Your task to perform on an android device: Add "macbook air" to the cart on costco Image 0: 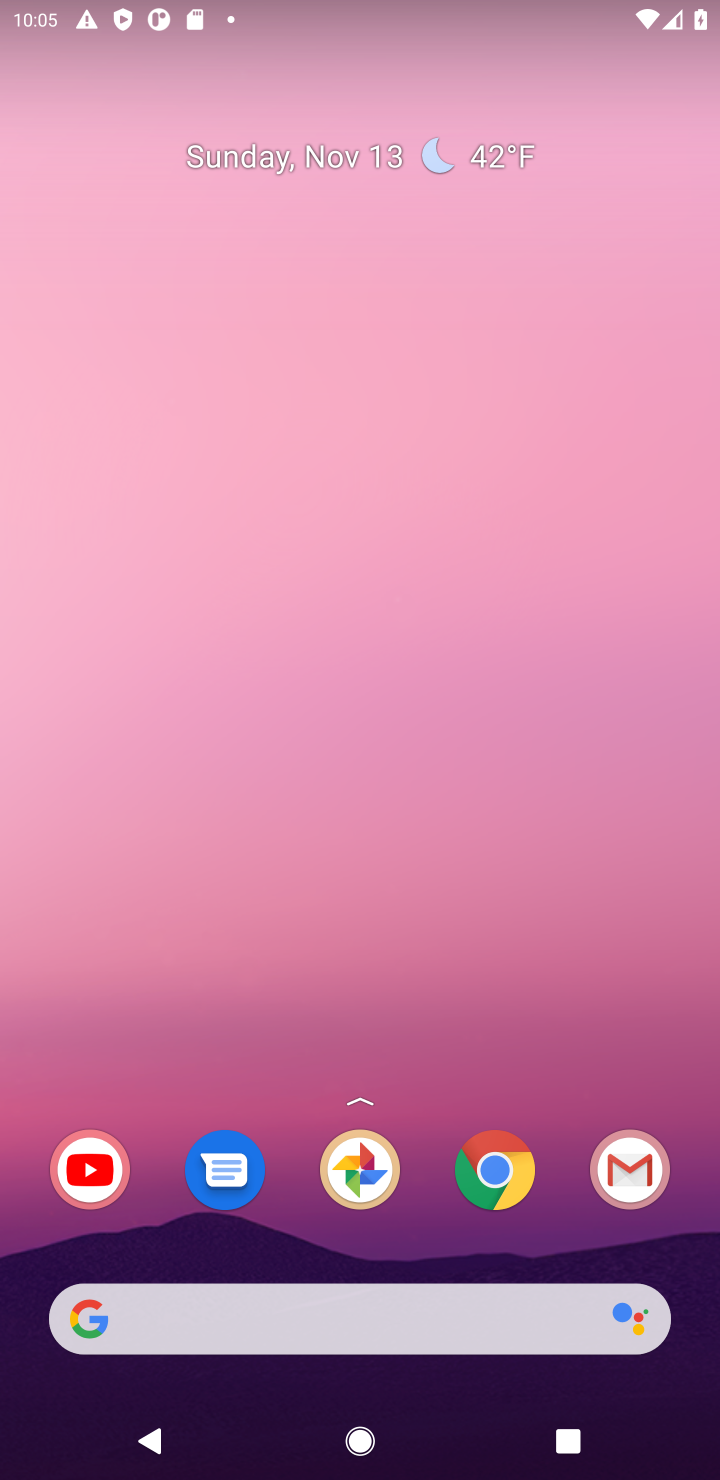
Step 0: drag from (399, 999) to (448, 24)
Your task to perform on an android device: Add "macbook air" to the cart on costco Image 1: 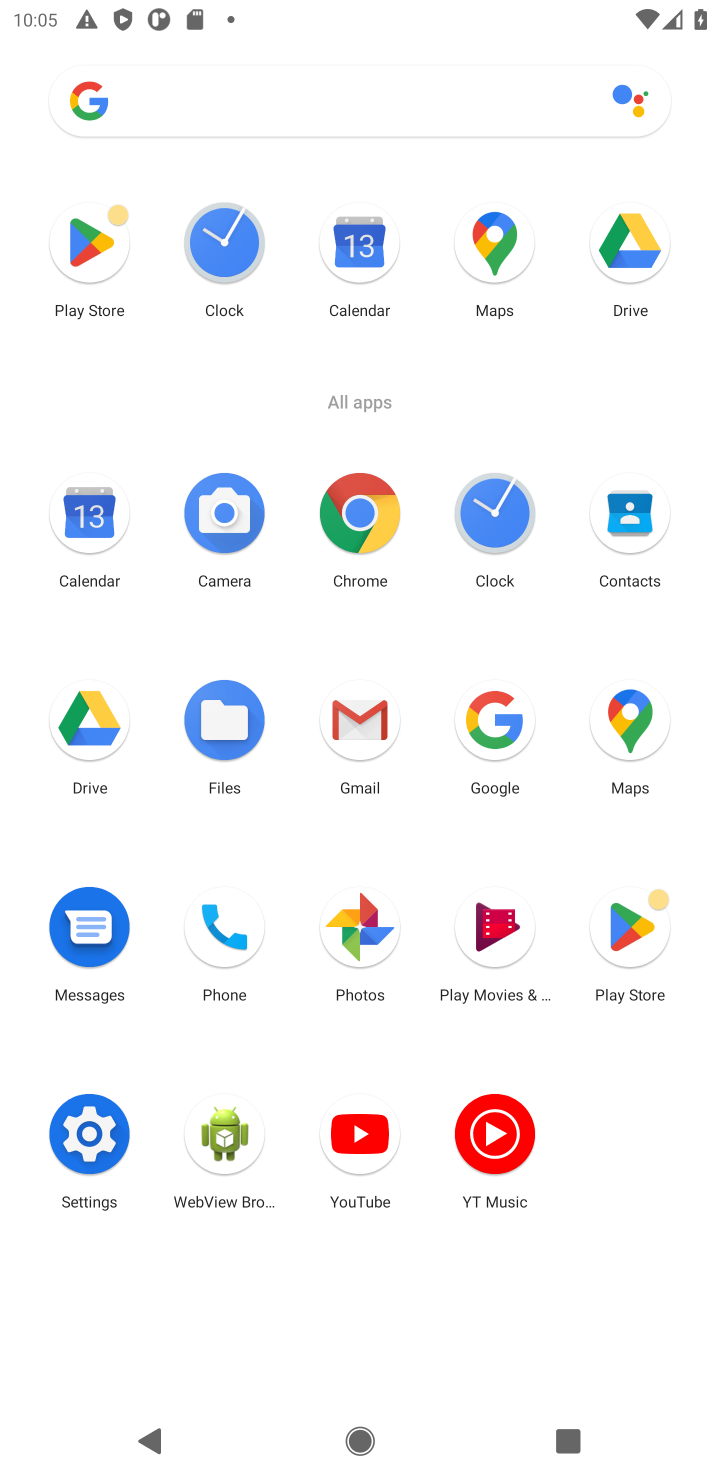
Step 1: click (357, 540)
Your task to perform on an android device: Add "macbook air" to the cart on costco Image 2: 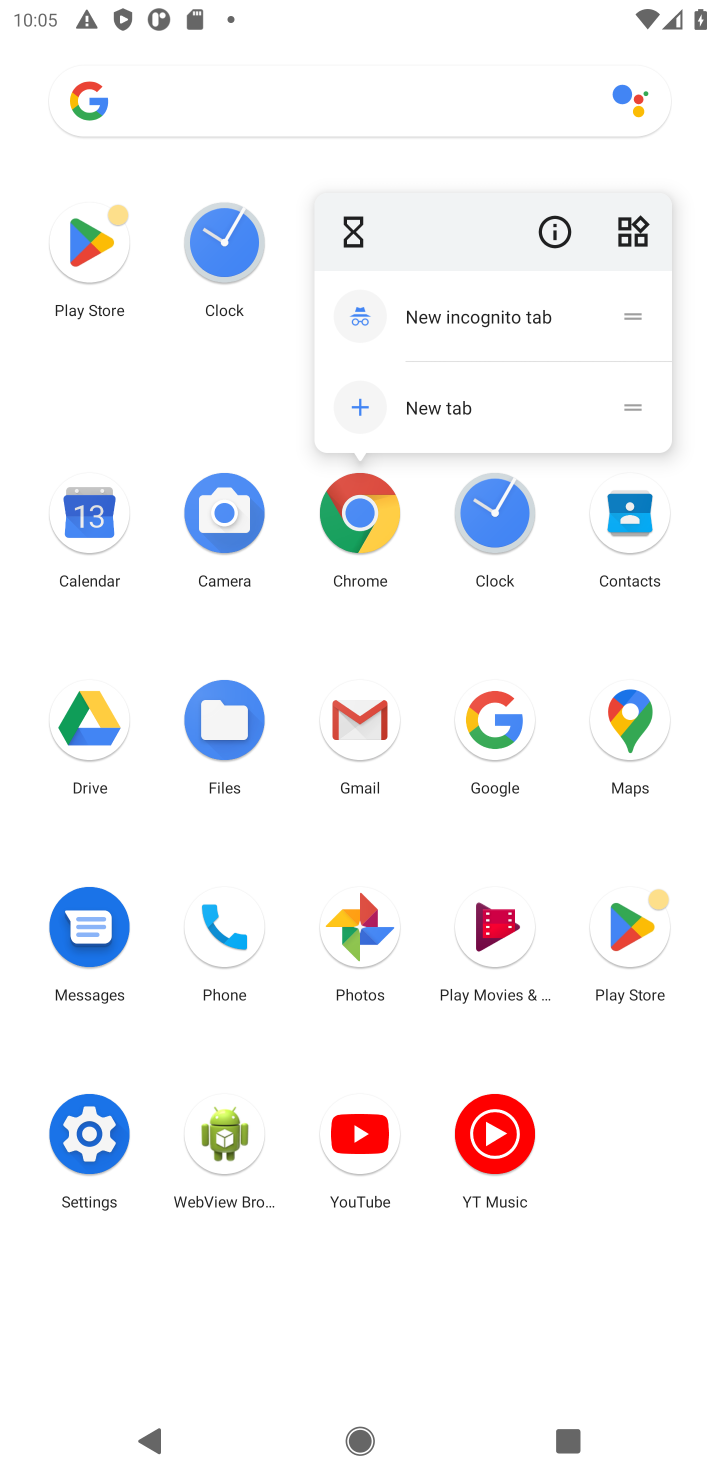
Step 2: click (357, 538)
Your task to perform on an android device: Add "macbook air" to the cart on costco Image 3: 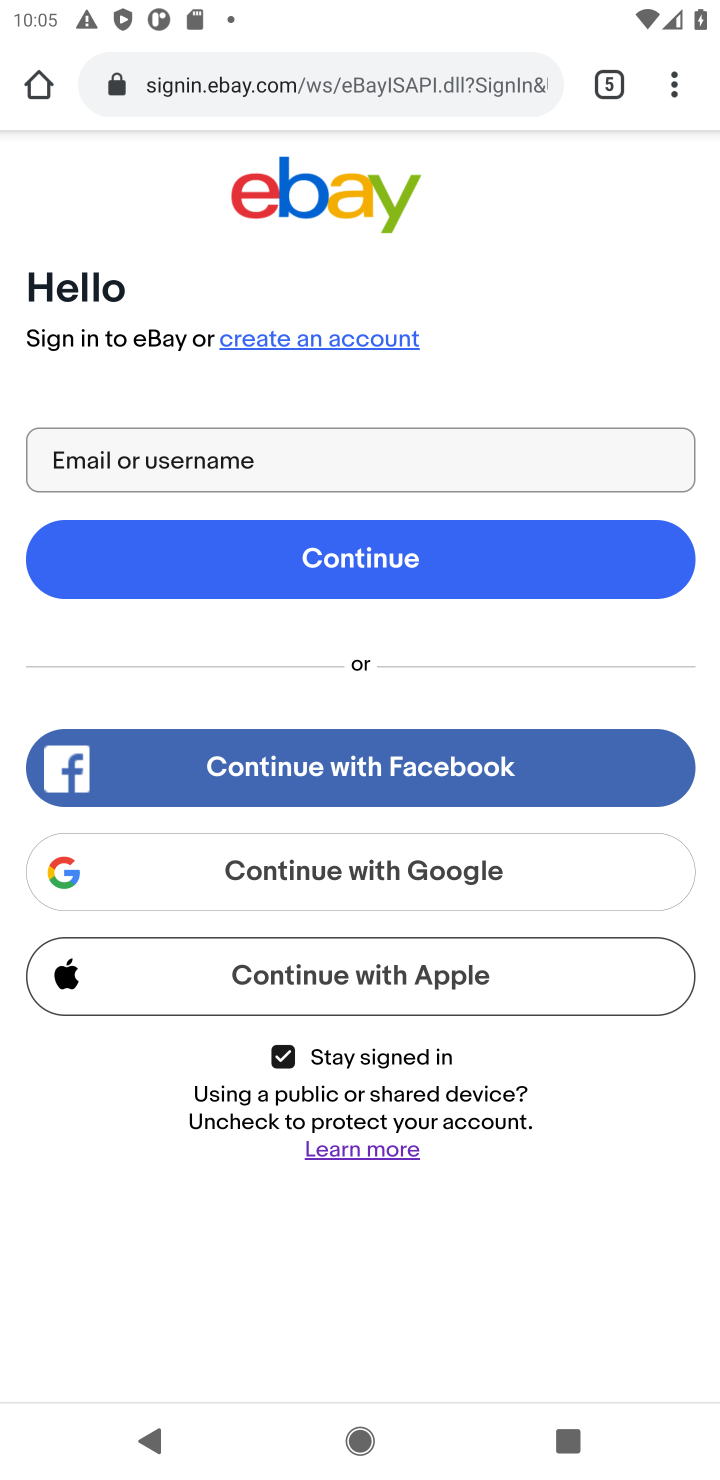
Step 3: click (300, 81)
Your task to perform on an android device: Add "macbook air" to the cart on costco Image 4: 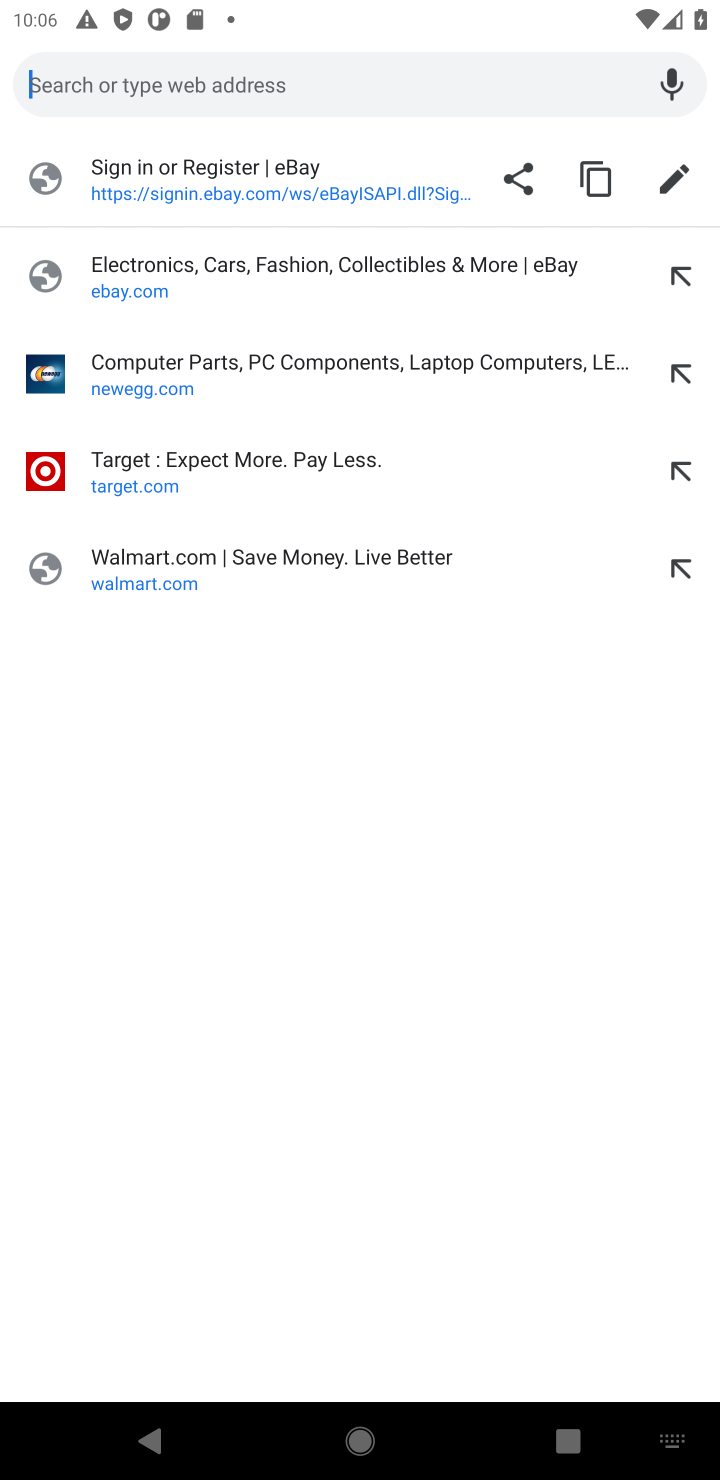
Step 4: type "costco"
Your task to perform on an android device: Add "macbook air" to the cart on costco Image 5: 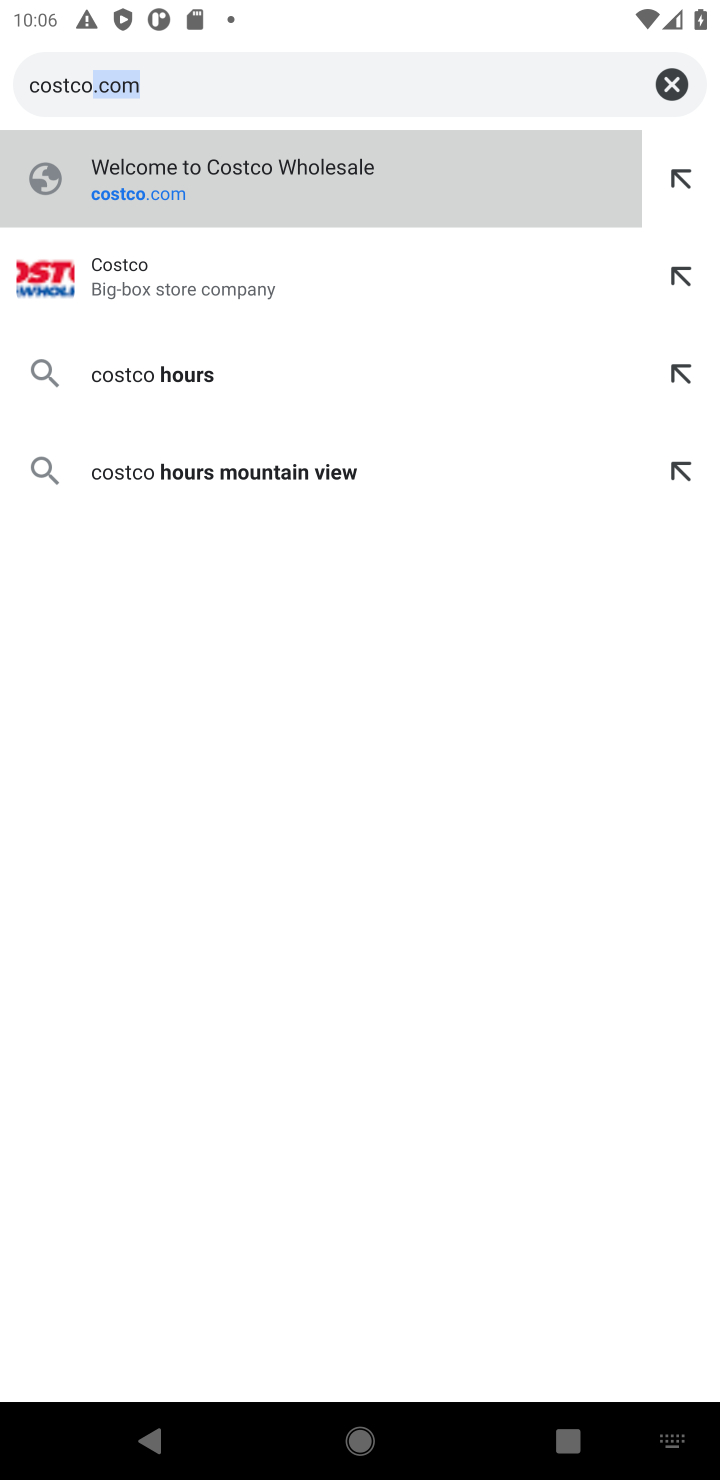
Step 5: press enter
Your task to perform on an android device: Add "macbook air" to the cart on costco Image 6: 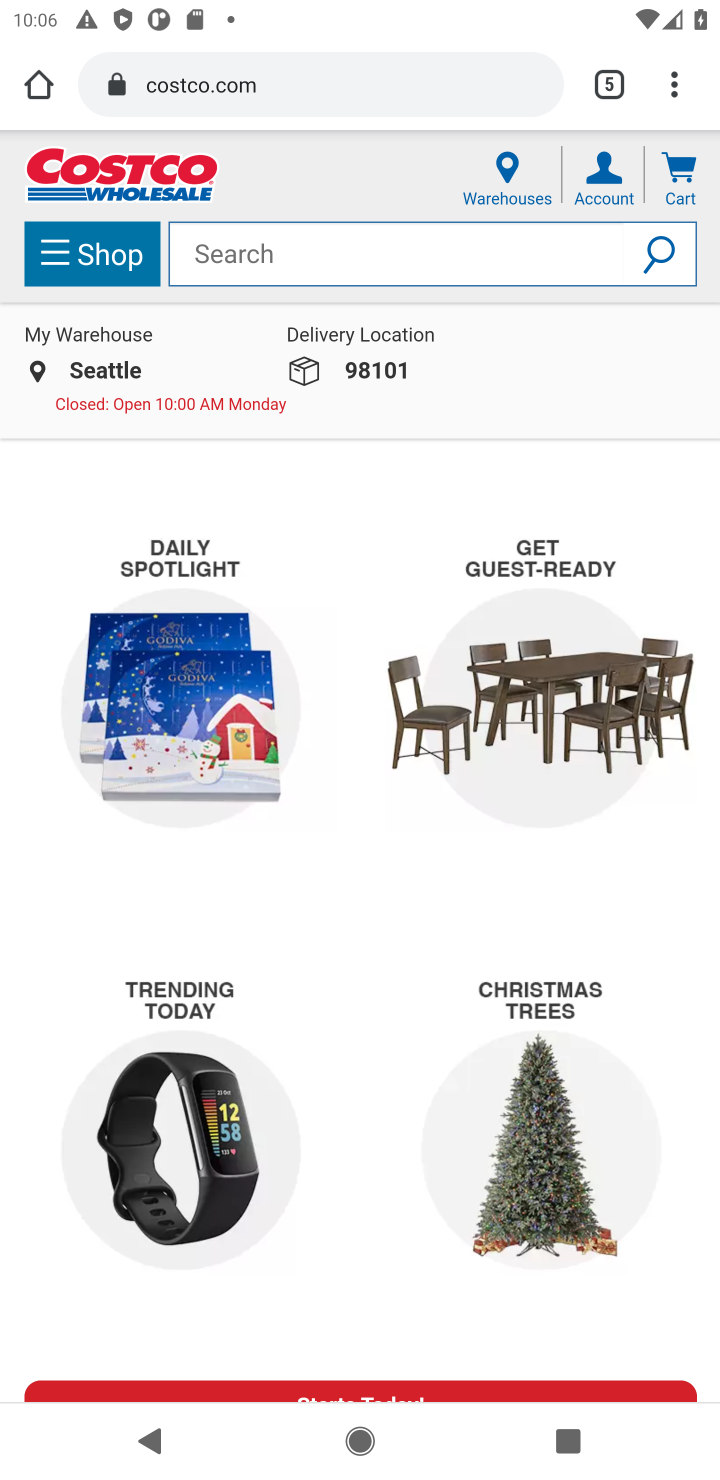
Step 6: drag from (285, 615) to (240, 860)
Your task to perform on an android device: Add "macbook air" to the cart on costco Image 7: 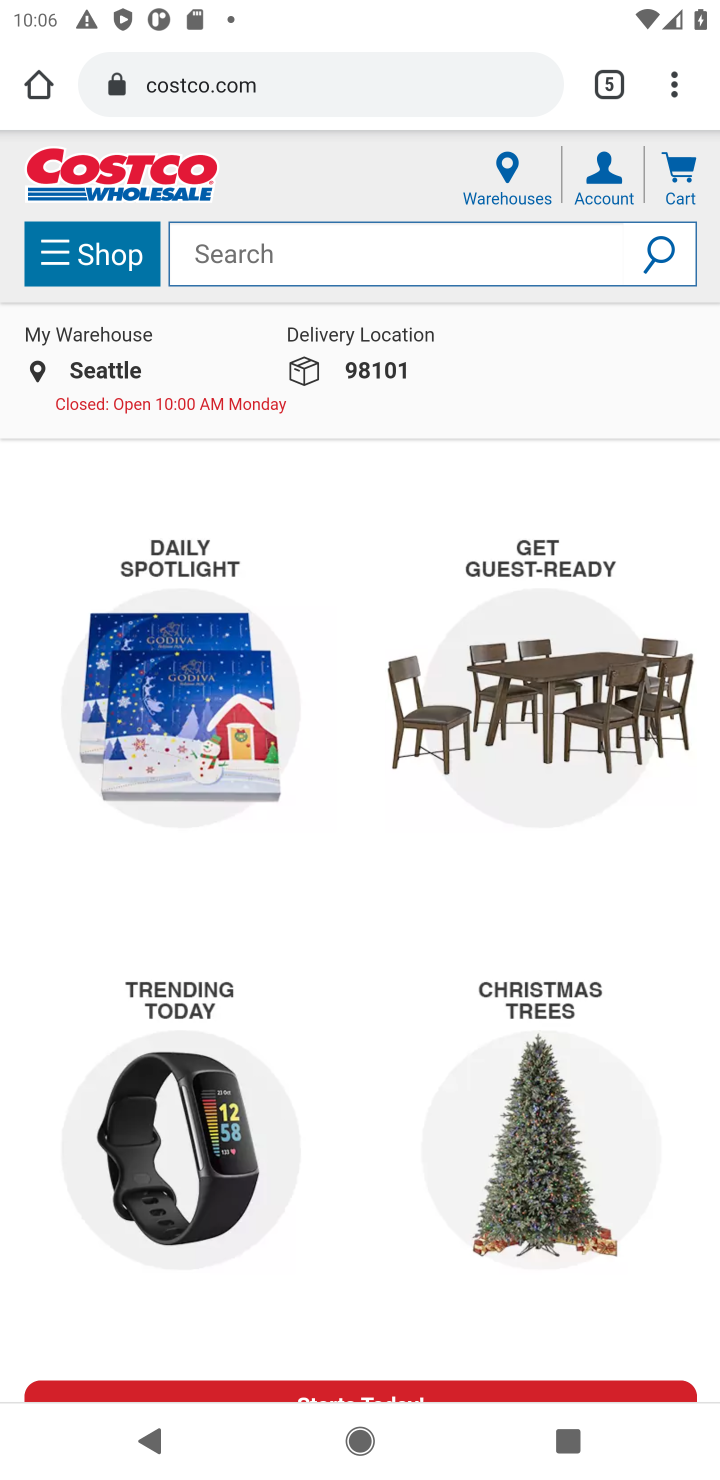
Step 7: click (364, 242)
Your task to perform on an android device: Add "macbook air" to the cart on costco Image 8: 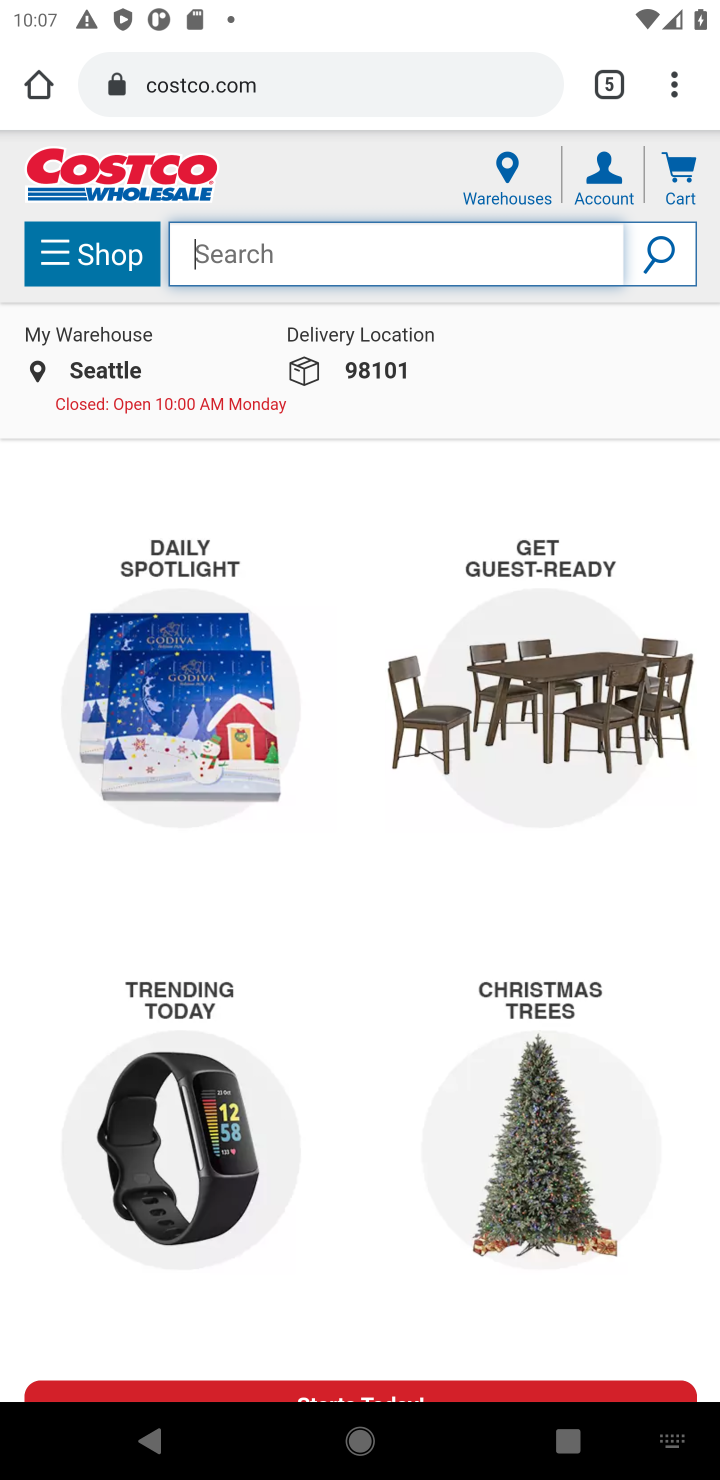
Step 8: type "macbook air"
Your task to perform on an android device: Add "macbook air" to the cart on costco Image 9: 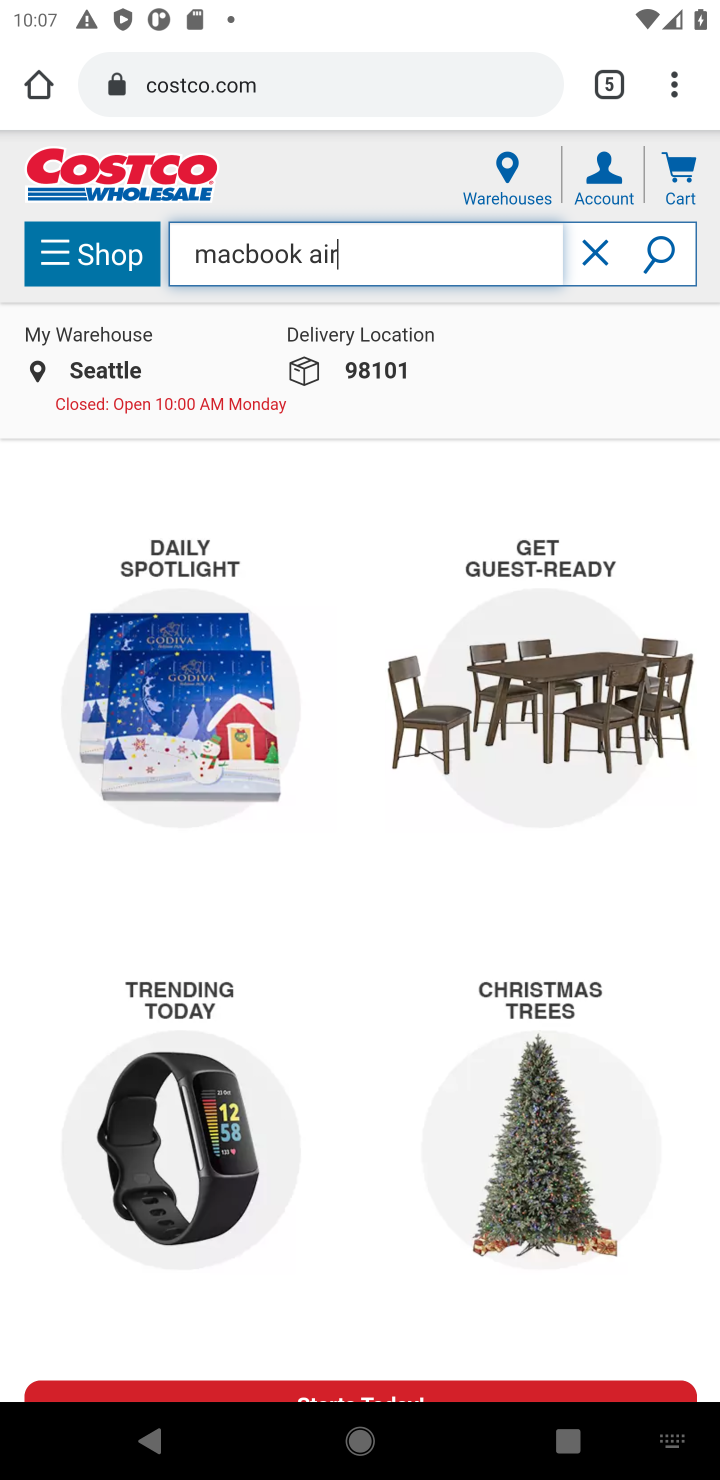
Step 9: press enter
Your task to perform on an android device: Add "macbook air" to the cart on costco Image 10: 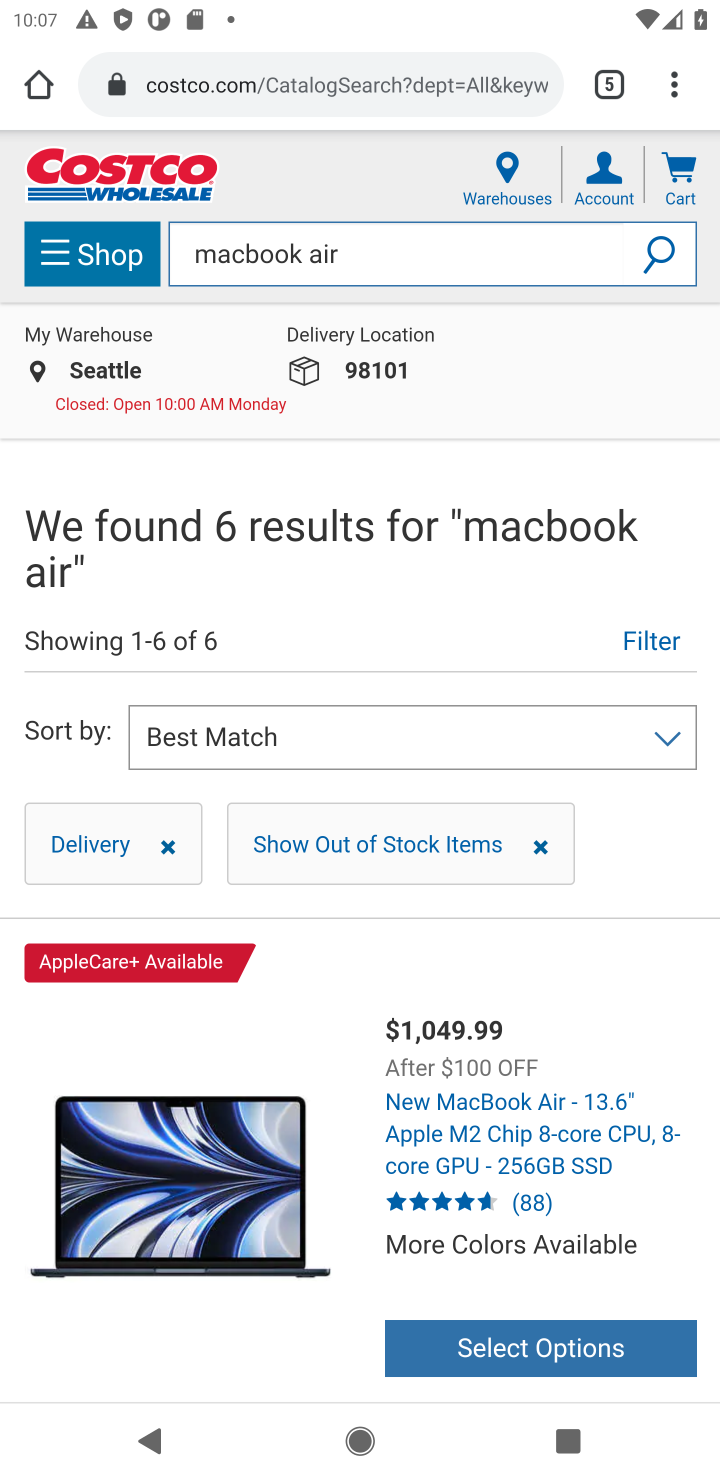
Step 10: drag from (327, 953) to (469, 365)
Your task to perform on an android device: Add "macbook air" to the cart on costco Image 11: 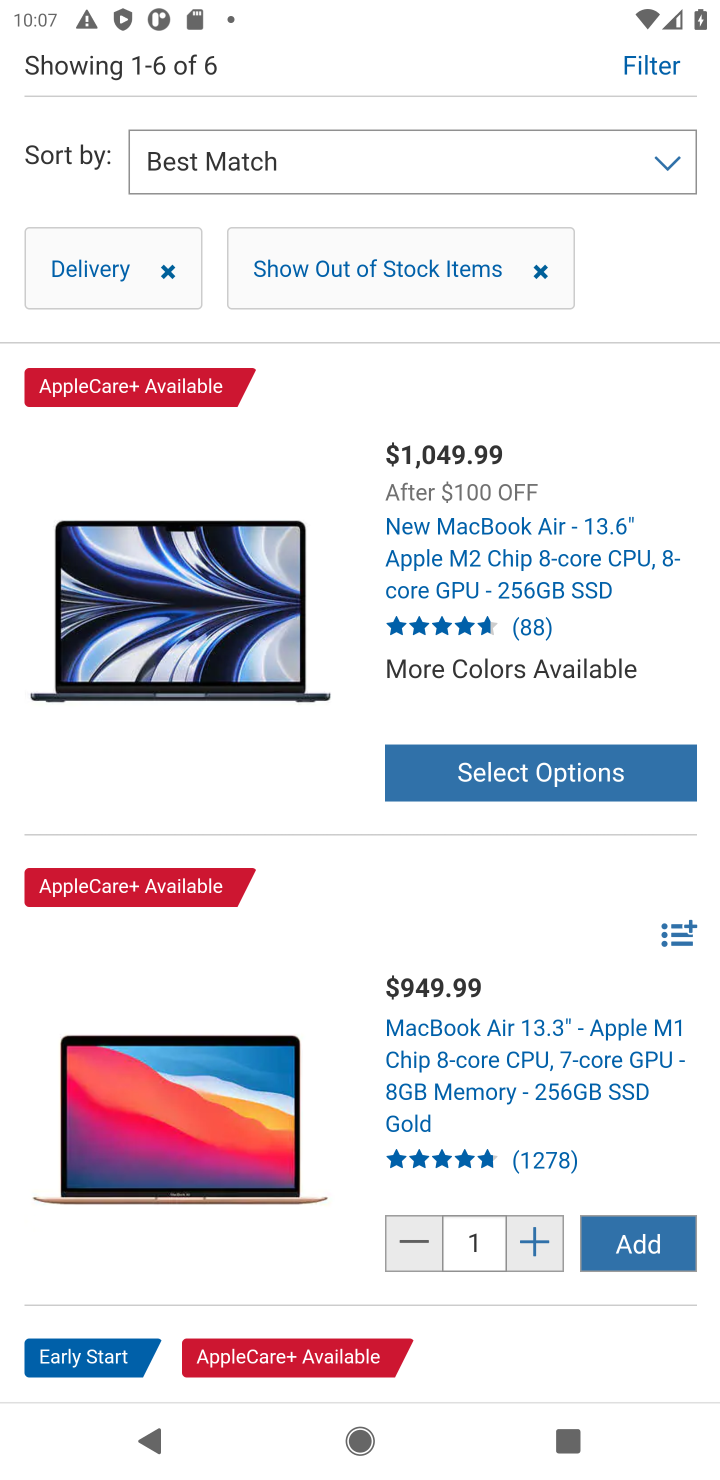
Step 11: click (538, 782)
Your task to perform on an android device: Add "macbook air" to the cart on costco Image 12: 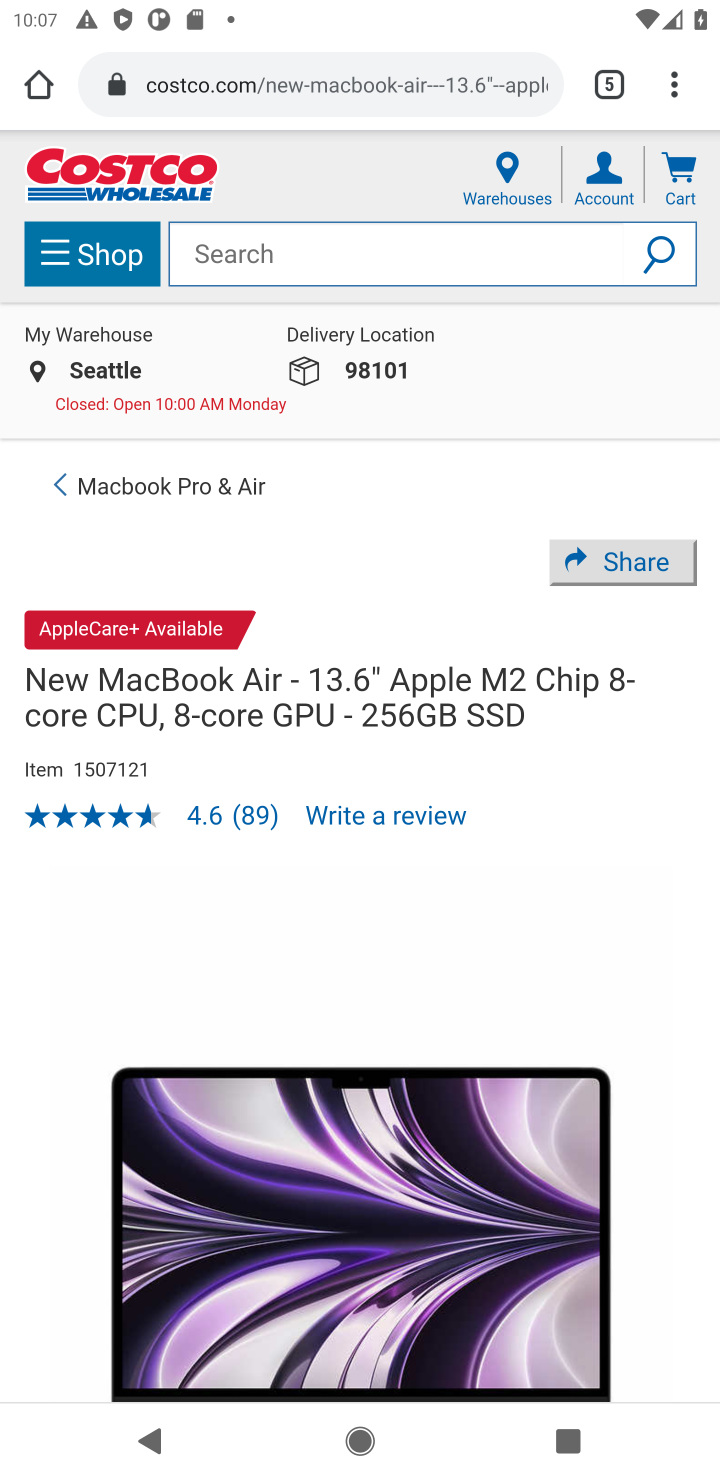
Step 12: drag from (572, 932) to (620, 421)
Your task to perform on an android device: Add "macbook air" to the cart on costco Image 13: 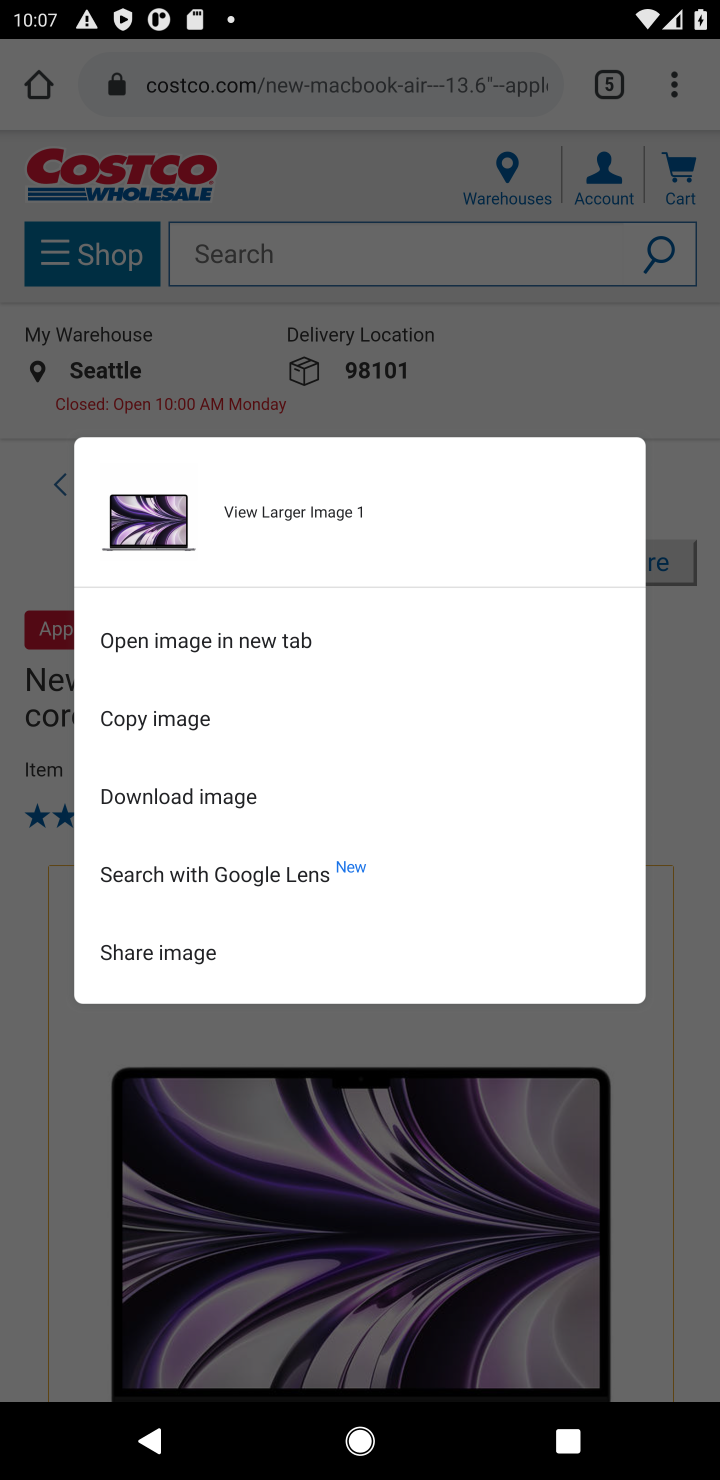
Step 13: click (463, 543)
Your task to perform on an android device: Add "macbook air" to the cart on costco Image 14: 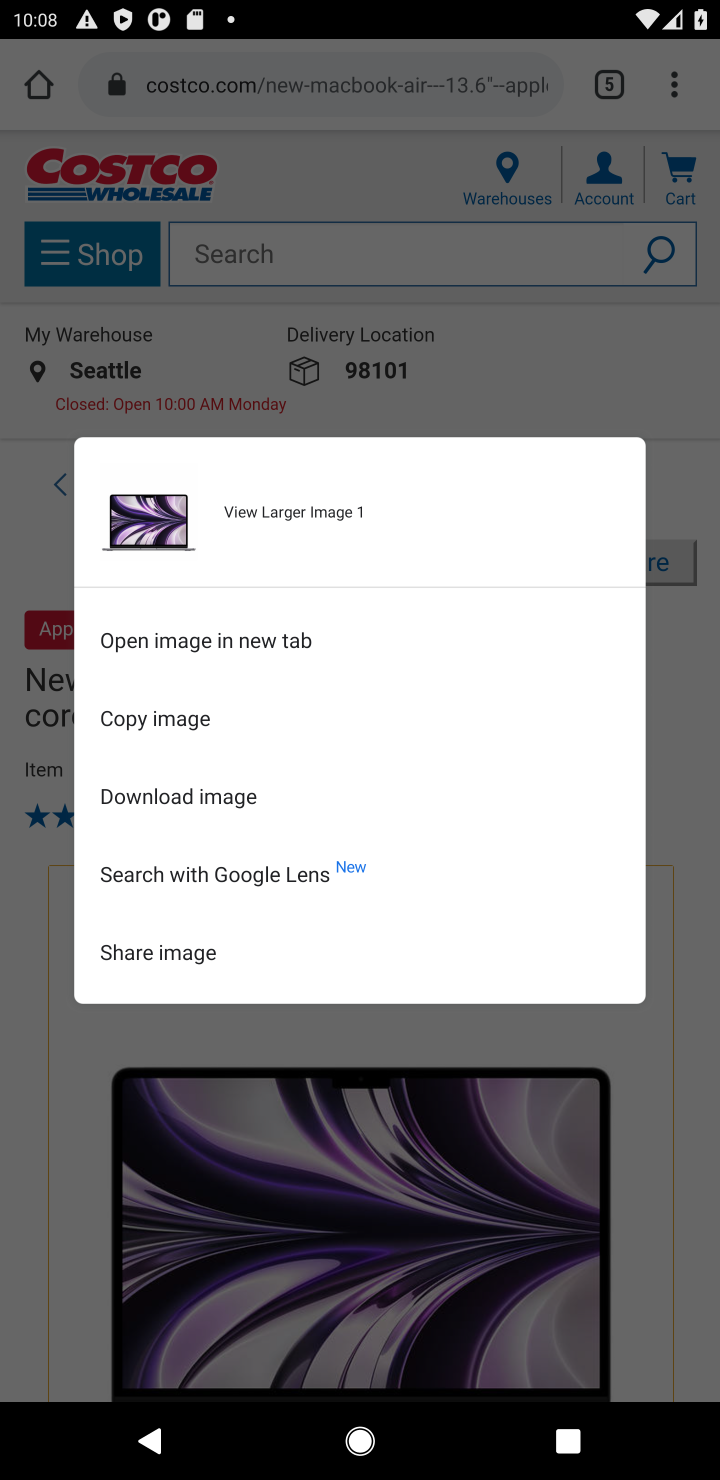
Step 14: click (505, 1206)
Your task to perform on an android device: Add "macbook air" to the cart on costco Image 15: 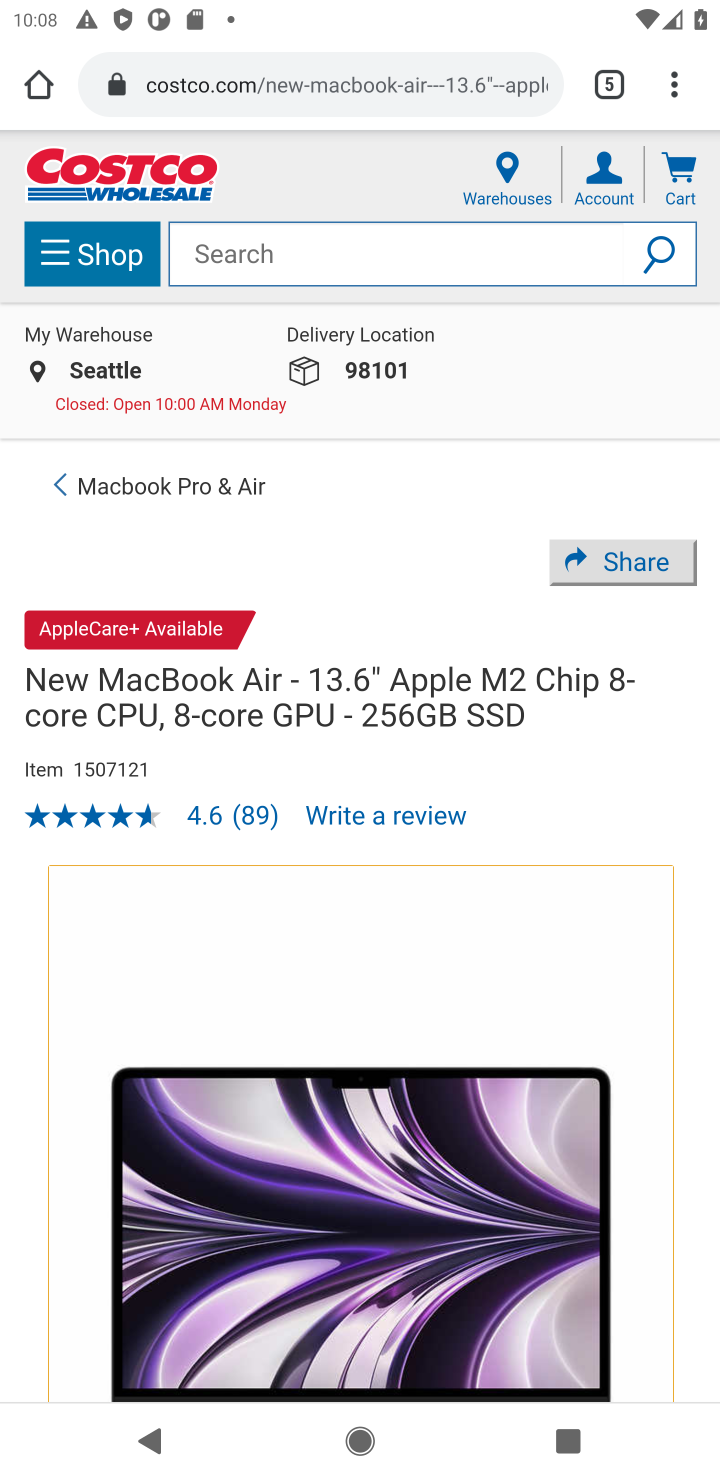
Step 15: drag from (369, 778) to (428, 163)
Your task to perform on an android device: Add "macbook air" to the cart on costco Image 16: 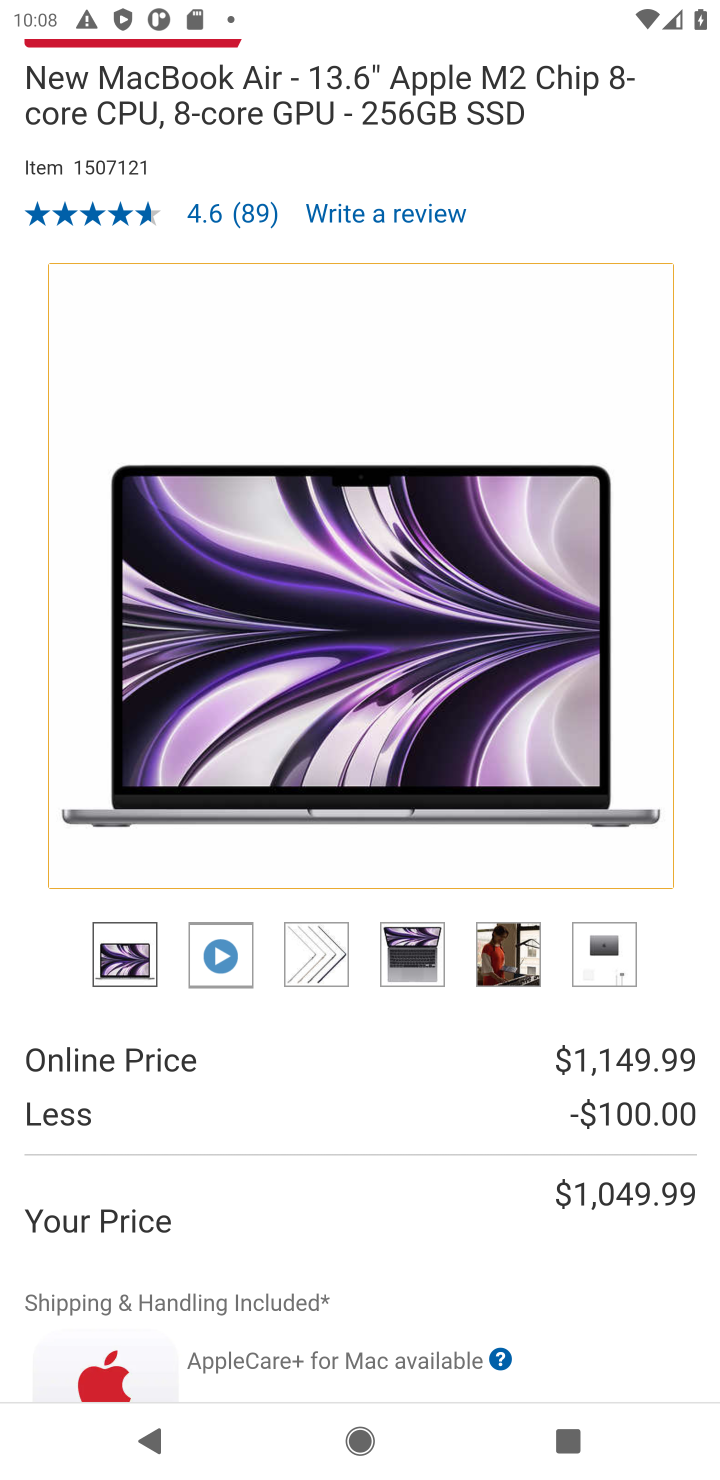
Step 16: drag from (356, 1117) to (328, 332)
Your task to perform on an android device: Add "macbook air" to the cart on costco Image 17: 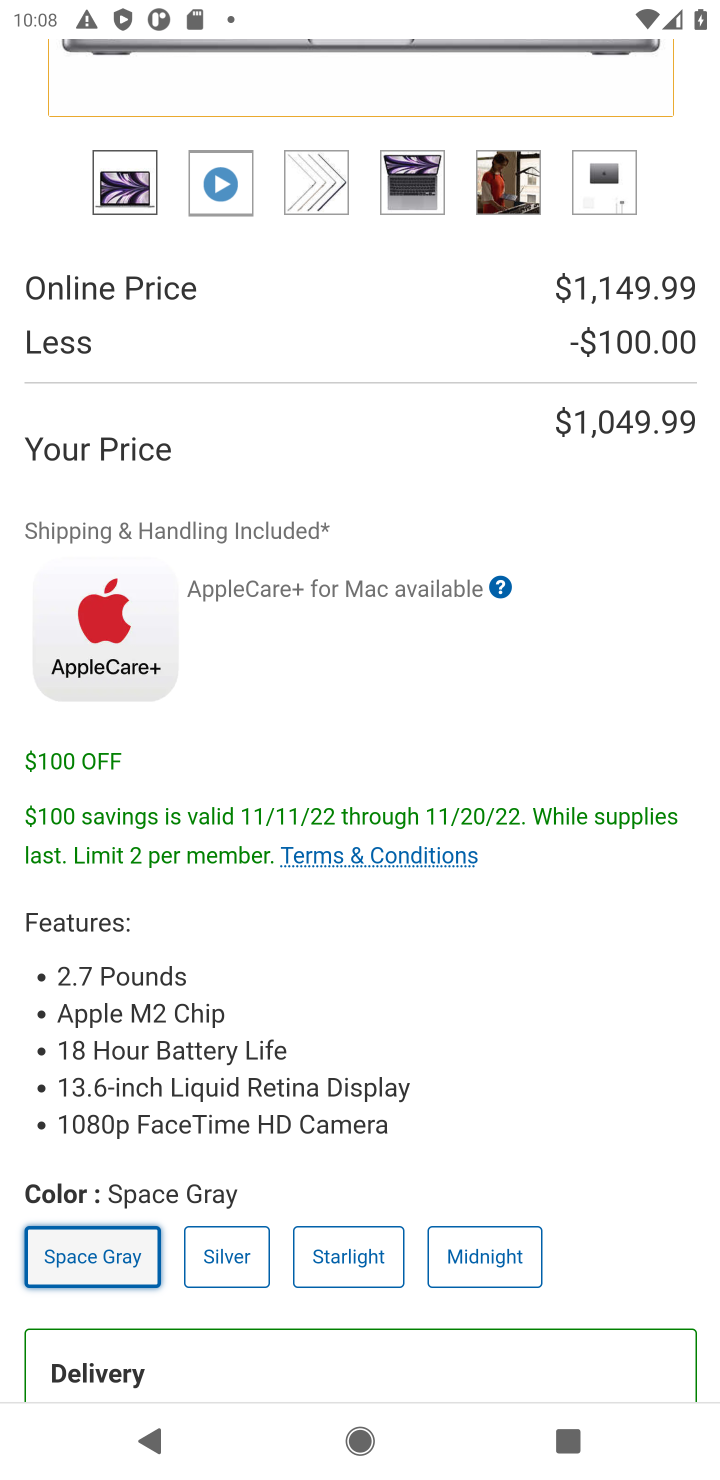
Step 17: drag from (365, 977) to (408, 342)
Your task to perform on an android device: Add "macbook air" to the cart on costco Image 18: 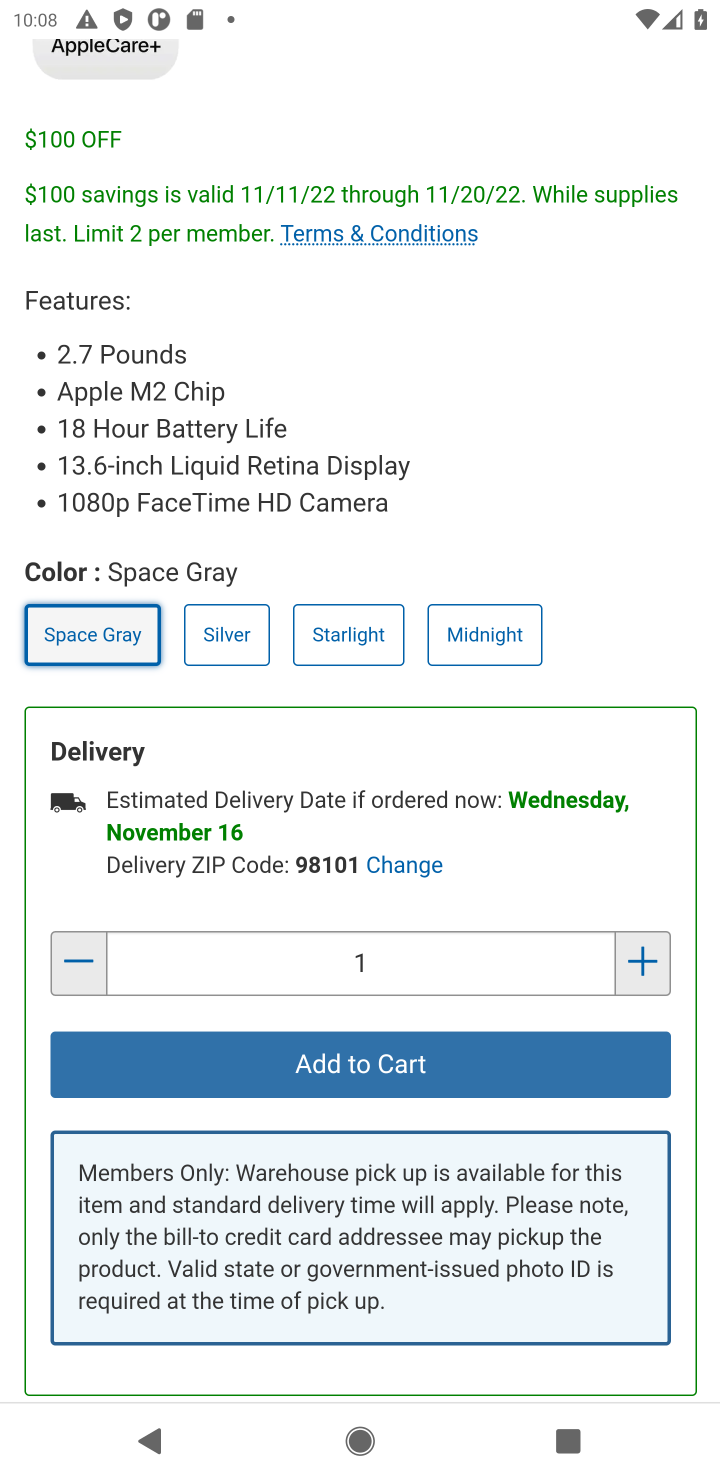
Step 18: click (382, 1072)
Your task to perform on an android device: Add "macbook air" to the cart on costco Image 19: 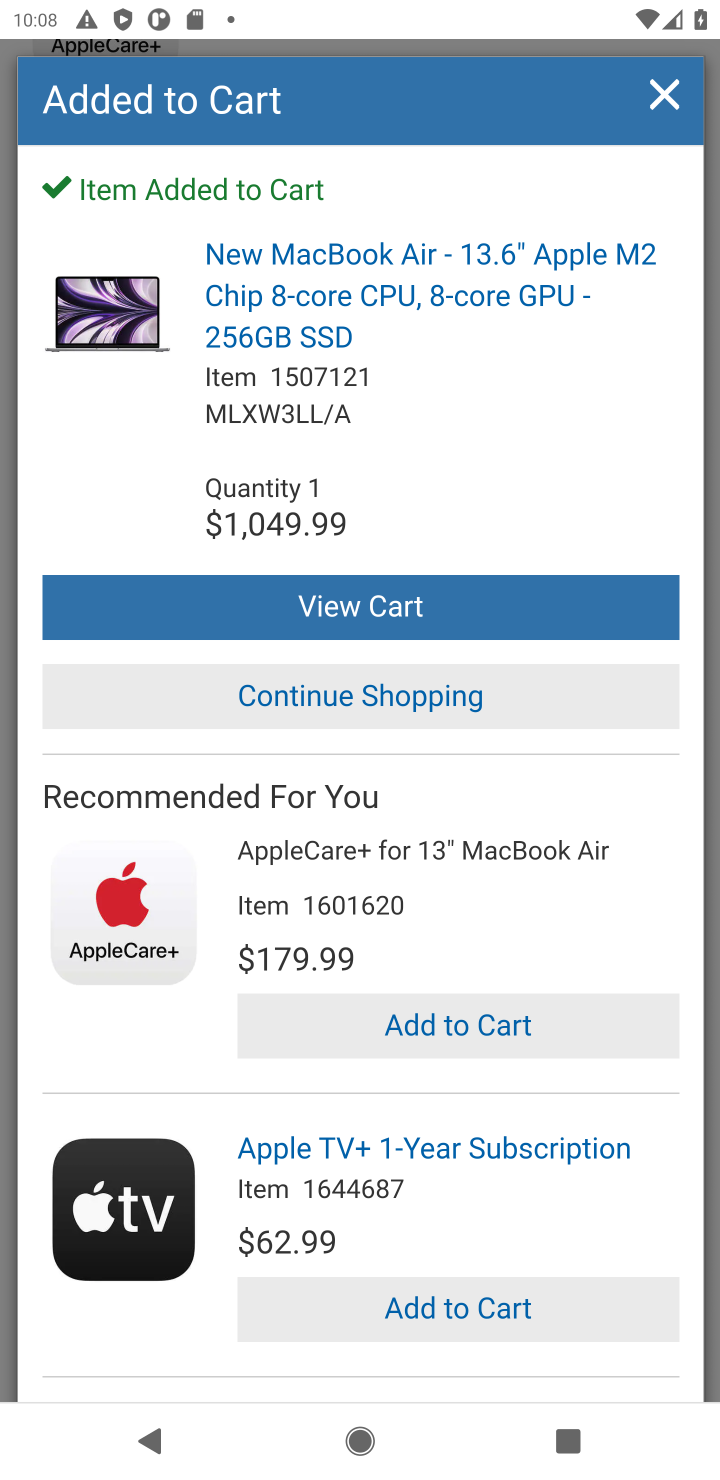
Step 19: task complete